Your task to perform on an android device: add a contact Image 0: 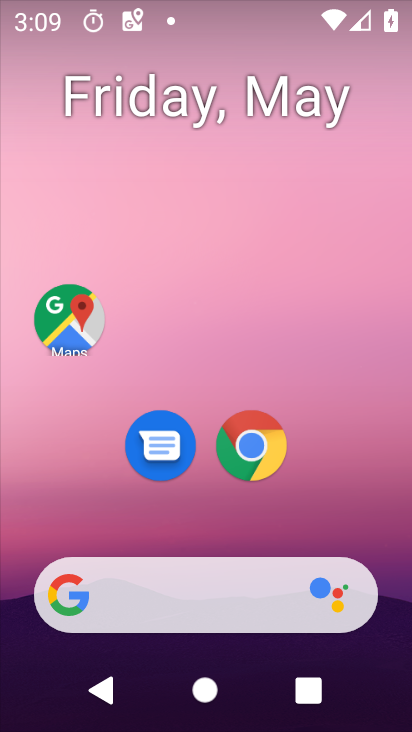
Step 0: drag from (219, 620) to (323, 173)
Your task to perform on an android device: add a contact Image 1: 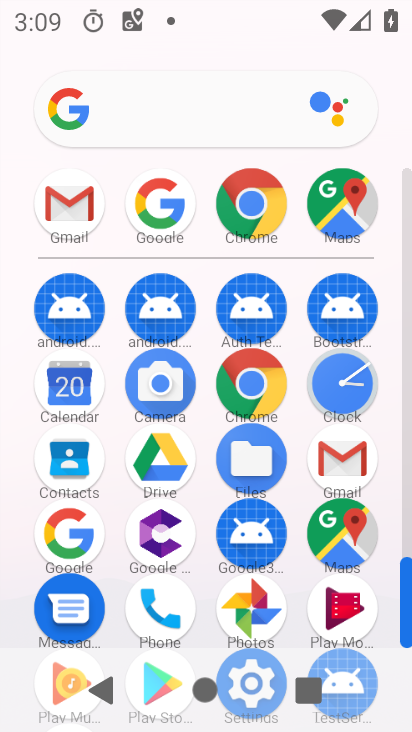
Step 1: click (84, 474)
Your task to perform on an android device: add a contact Image 2: 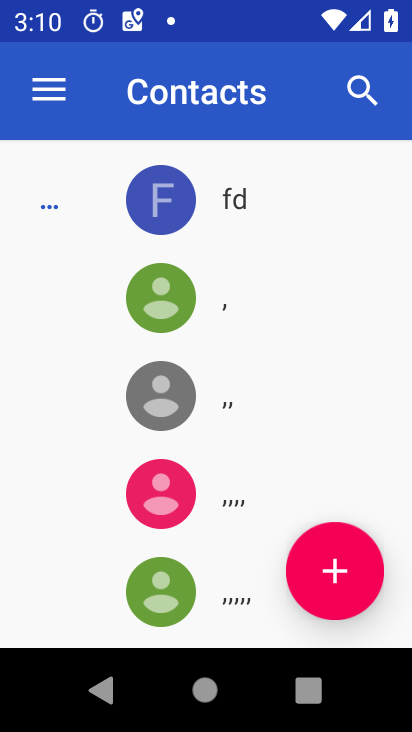
Step 2: click (341, 585)
Your task to perform on an android device: add a contact Image 3: 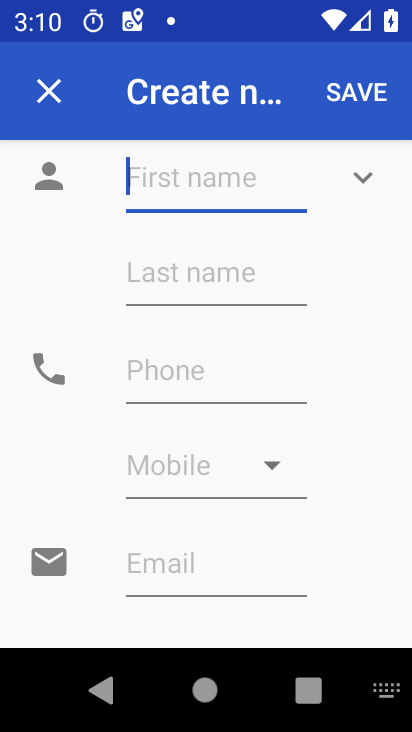
Step 3: type "huhkgjgv"
Your task to perform on an android device: add a contact Image 4: 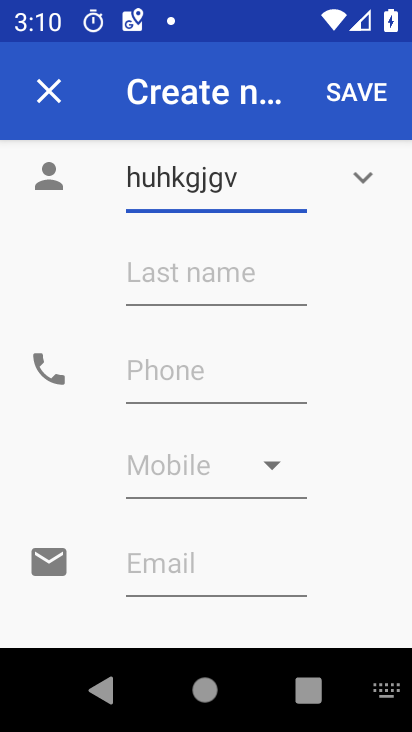
Step 4: click (189, 382)
Your task to perform on an android device: add a contact Image 5: 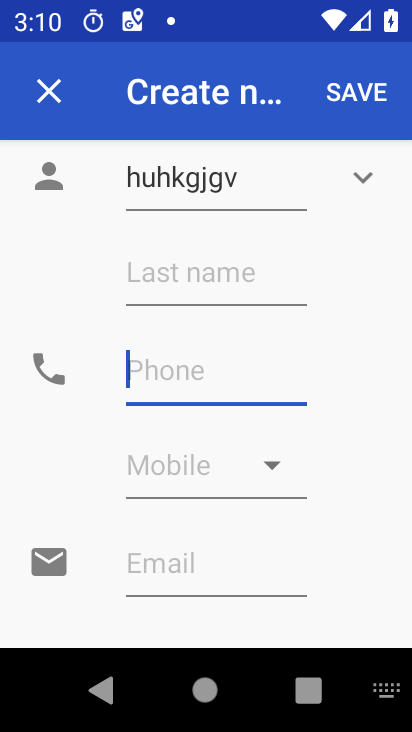
Step 5: type "96676876568"
Your task to perform on an android device: add a contact Image 6: 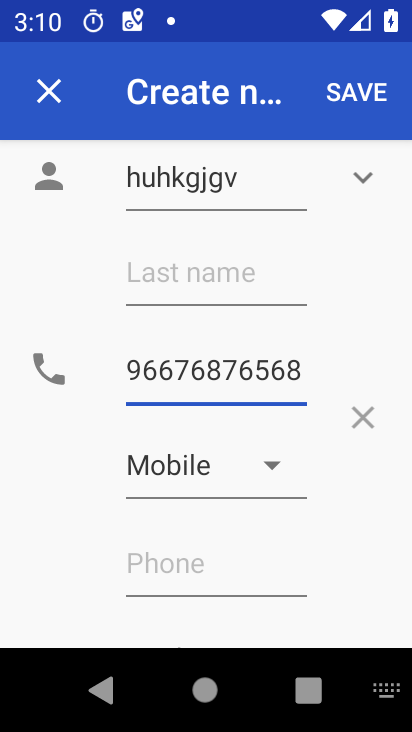
Step 6: click (358, 98)
Your task to perform on an android device: add a contact Image 7: 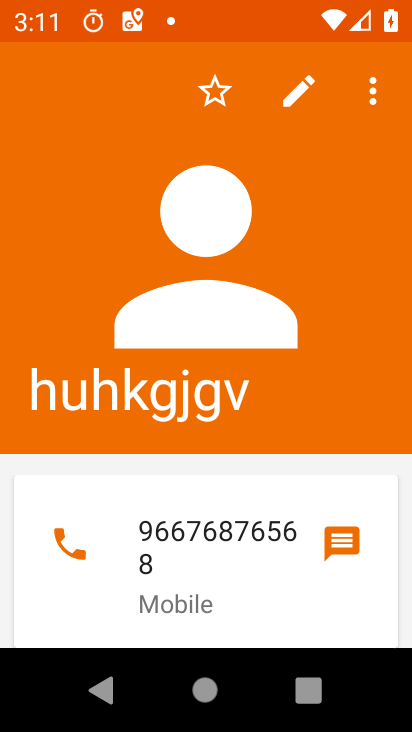
Step 7: task complete